Your task to perform on an android device: Show me productivity apps on the Play Store Image 0: 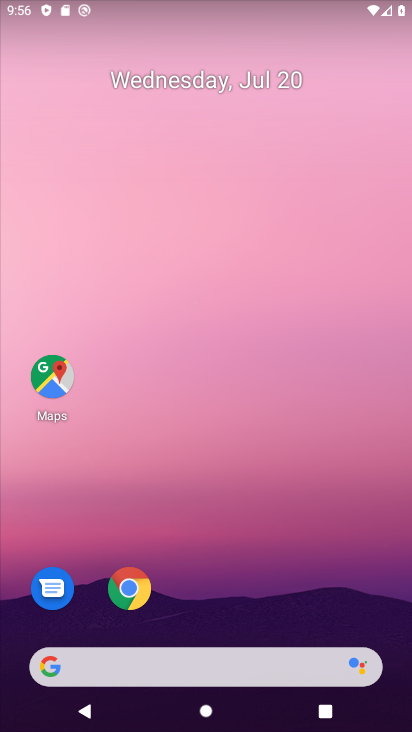
Step 0: drag from (223, 223) to (200, 68)
Your task to perform on an android device: Show me productivity apps on the Play Store Image 1: 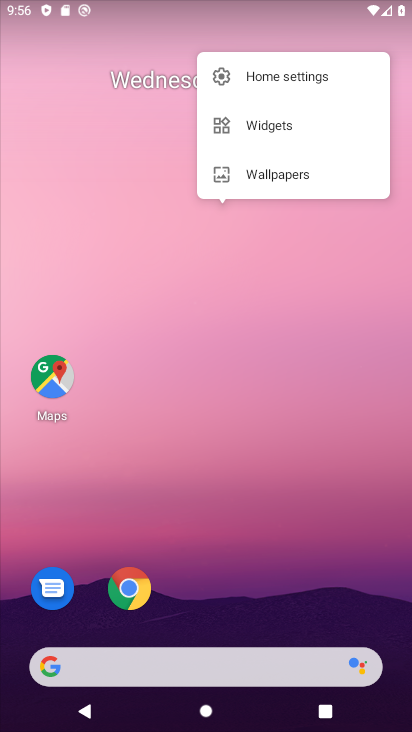
Step 1: drag from (205, 490) to (181, 229)
Your task to perform on an android device: Show me productivity apps on the Play Store Image 2: 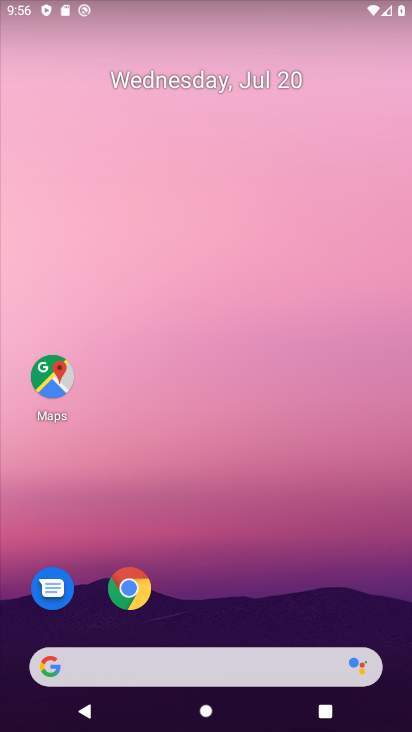
Step 2: drag from (231, 592) to (210, 161)
Your task to perform on an android device: Show me productivity apps on the Play Store Image 3: 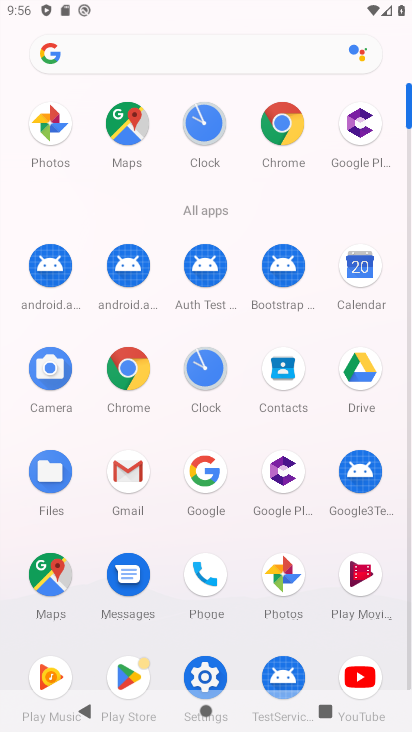
Step 3: click (123, 682)
Your task to perform on an android device: Show me productivity apps on the Play Store Image 4: 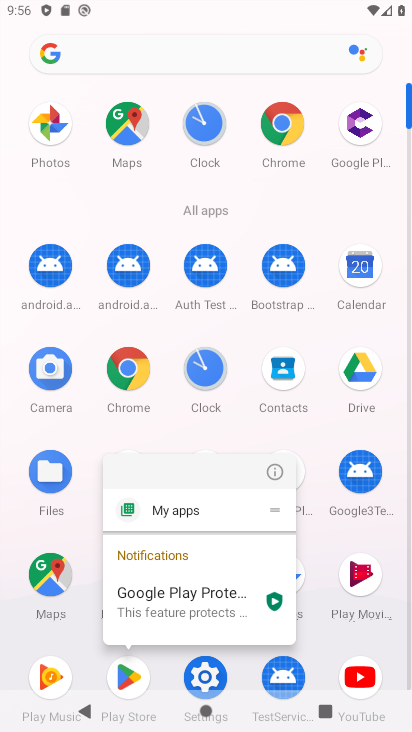
Step 4: click (123, 682)
Your task to perform on an android device: Show me productivity apps on the Play Store Image 5: 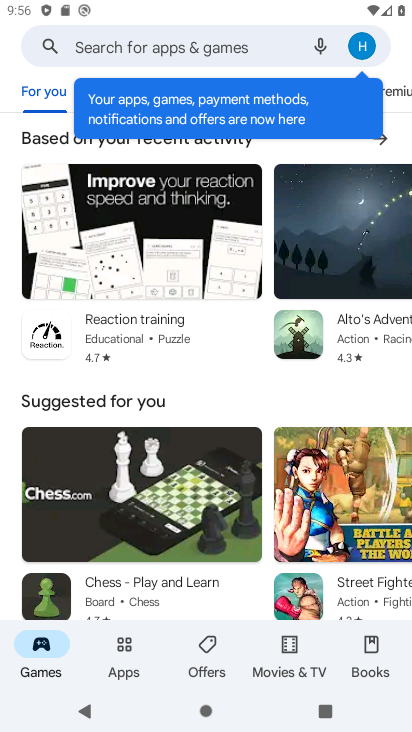
Step 5: drag from (273, 415) to (285, 365)
Your task to perform on an android device: Show me productivity apps on the Play Store Image 6: 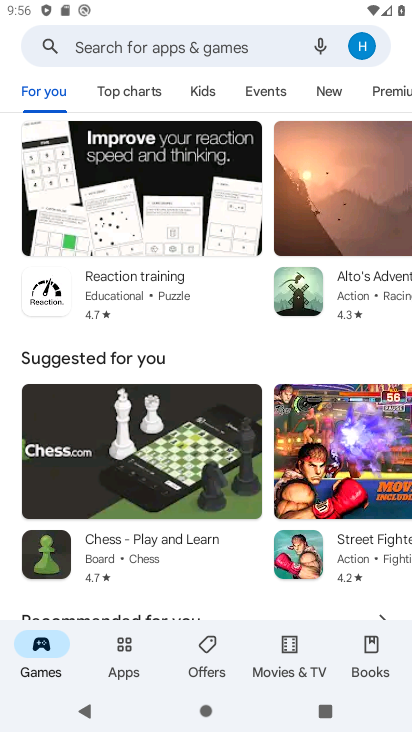
Step 6: click (124, 659)
Your task to perform on an android device: Show me productivity apps on the Play Store Image 7: 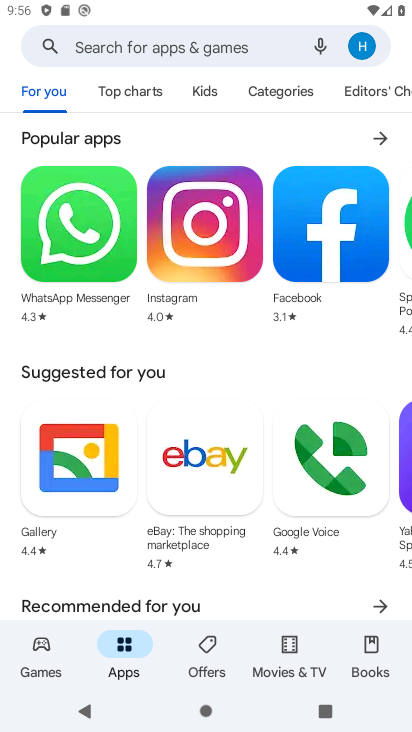
Step 7: click (291, 98)
Your task to perform on an android device: Show me productivity apps on the Play Store Image 8: 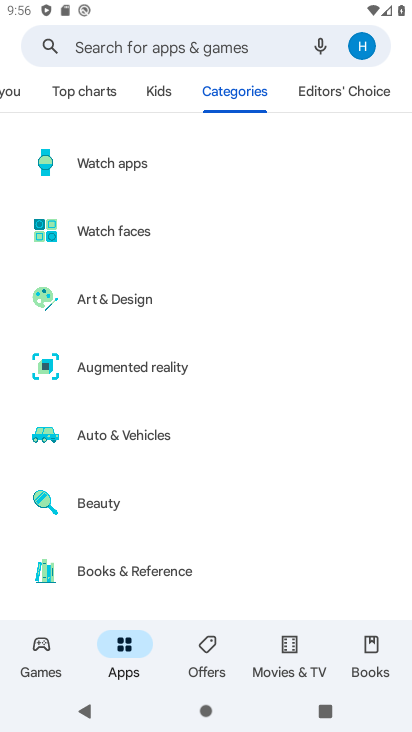
Step 8: drag from (153, 601) to (159, 162)
Your task to perform on an android device: Show me productivity apps on the Play Store Image 9: 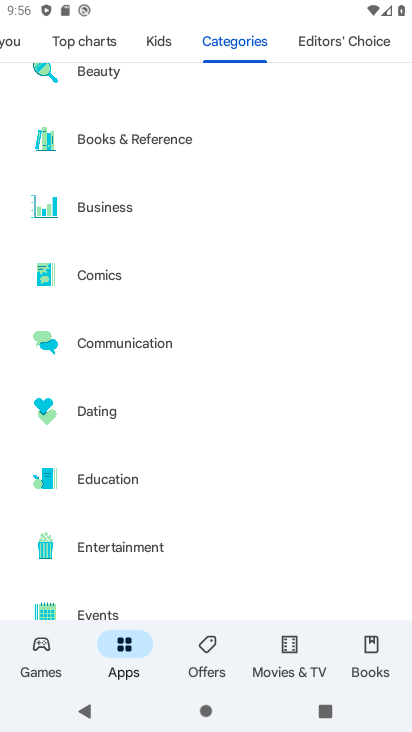
Step 9: drag from (196, 572) to (153, 206)
Your task to perform on an android device: Show me productivity apps on the Play Store Image 10: 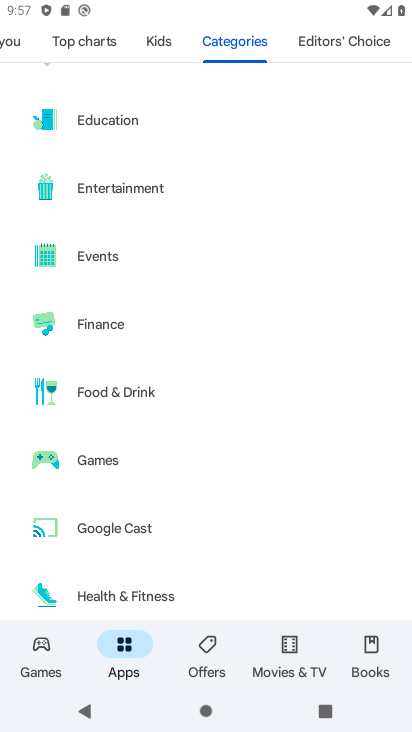
Step 10: drag from (181, 565) to (160, 294)
Your task to perform on an android device: Show me productivity apps on the Play Store Image 11: 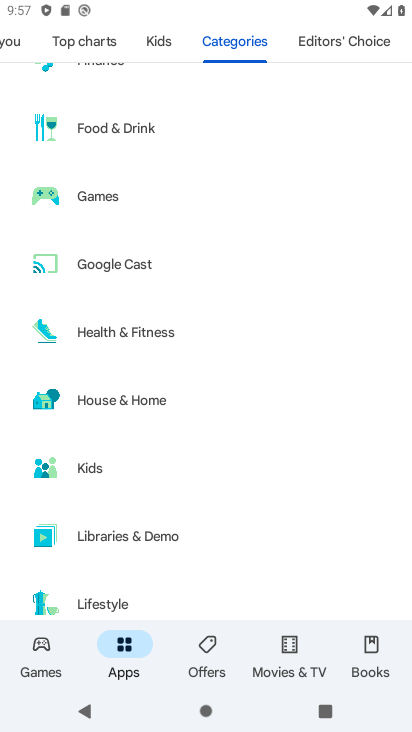
Step 11: drag from (183, 528) to (131, 182)
Your task to perform on an android device: Show me productivity apps on the Play Store Image 12: 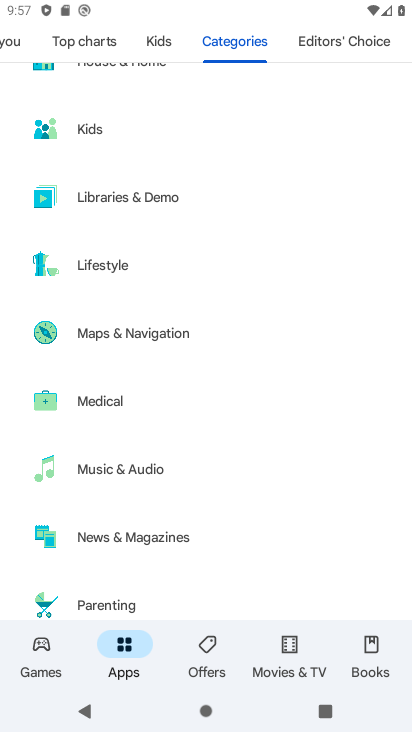
Step 12: drag from (161, 473) to (168, 235)
Your task to perform on an android device: Show me productivity apps on the Play Store Image 13: 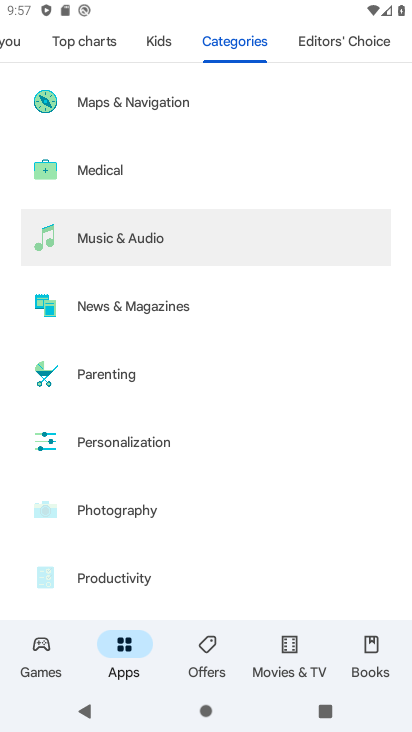
Step 13: drag from (156, 462) to (176, 137)
Your task to perform on an android device: Show me productivity apps on the Play Store Image 14: 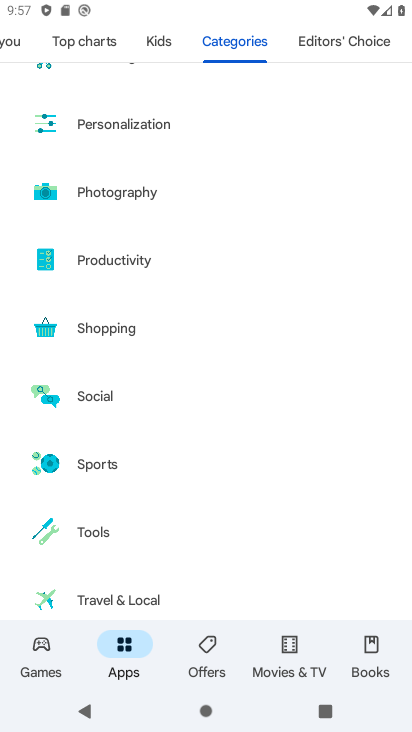
Step 14: drag from (187, 580) to (179, 335)
Your task to perform on an android device: Show me productivity apps on the Play Store Image 15: 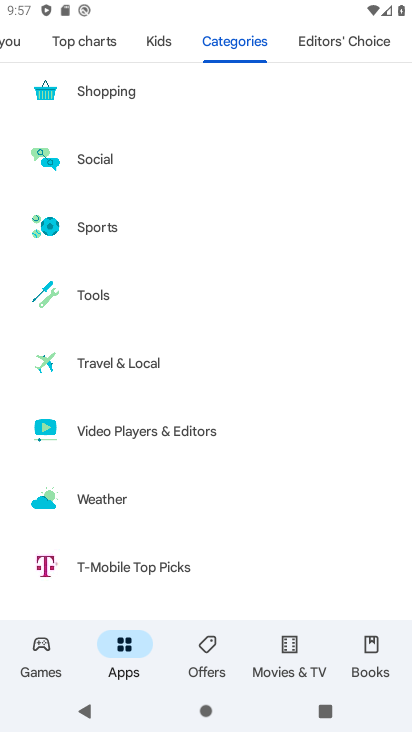
Step 15: drag from (168, 147) to (191, 342)
Your task to perform on an android device: Show me productivity apps on the Play Store Image 16: 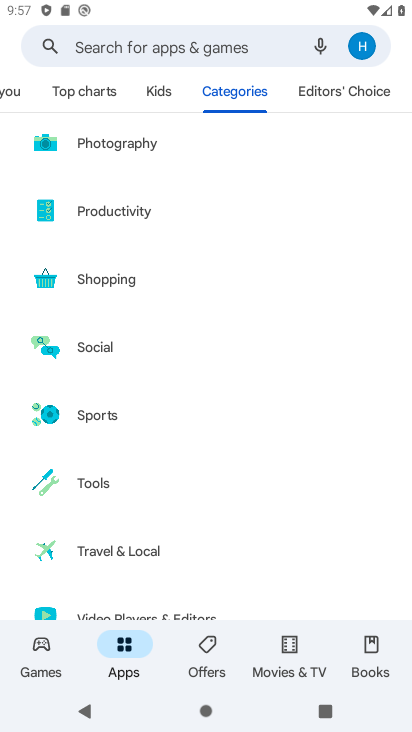
Step 16: click (131, 216)
Your task to perform on an android device: Show me productivity apps on the Play Store Image 17: 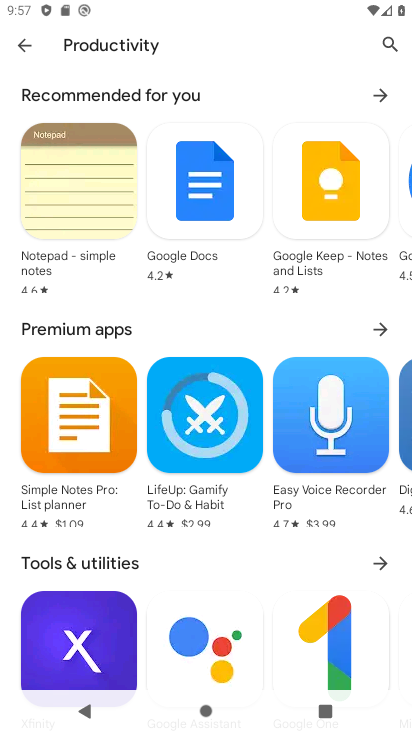
Step 17: task complete